Your task to perform on an android device: Set the phone to "Do not disturb". Image 0: 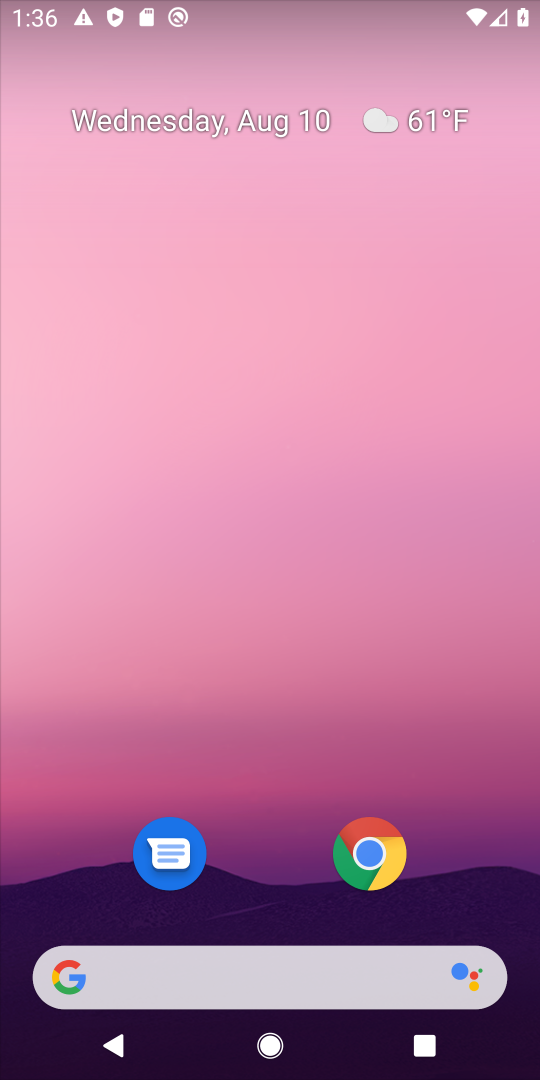
Step 0: drag from (381, 2) to (404, 588)
Your task to perform on an android device: Set the phone to "Do not disturb". Image 1: 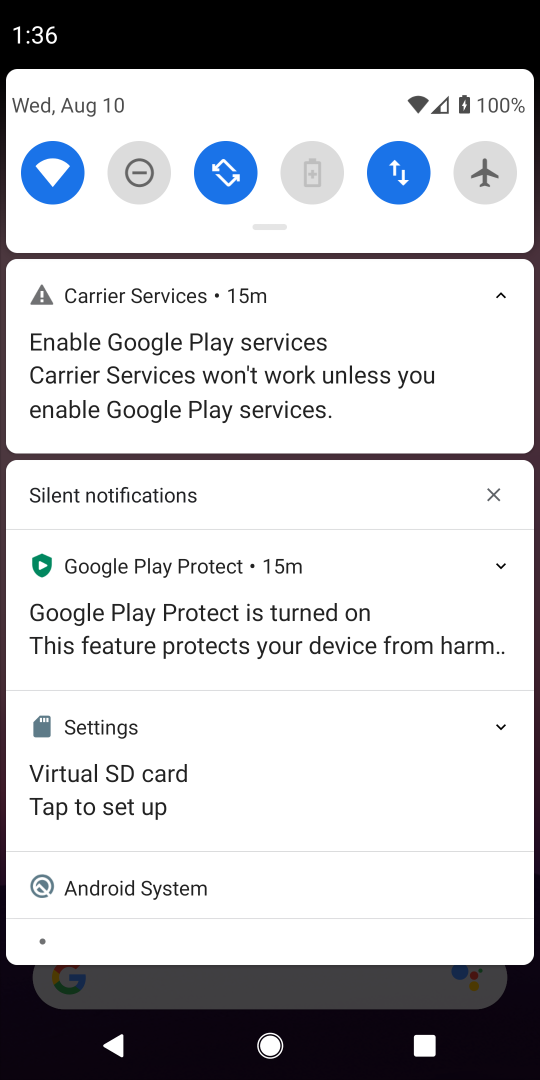
Step 1: click (133, 149)
Your task to perform on an android device: Set the phone to "Do not disturb". Image 2: 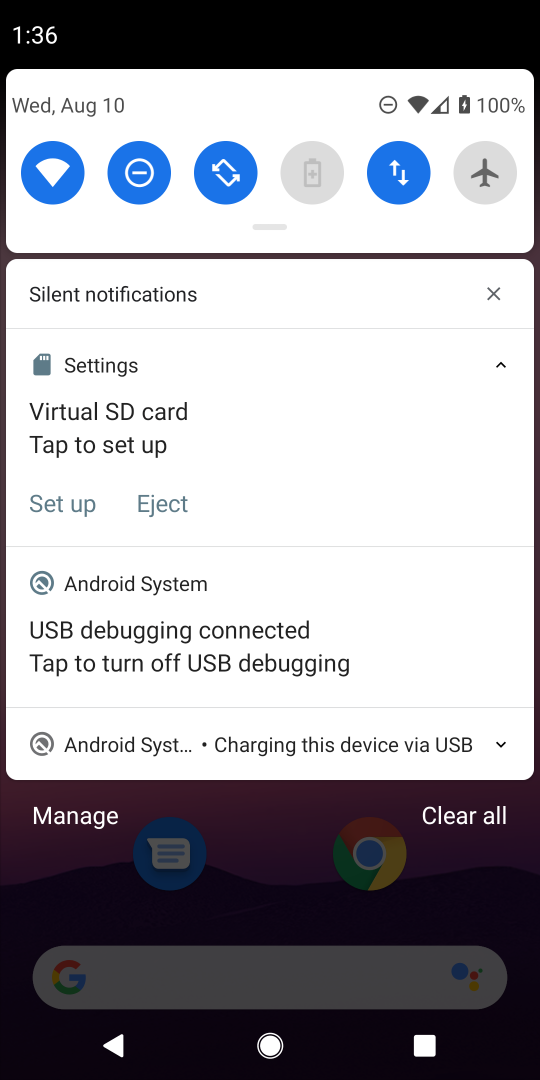
Step 2: task complete